Your task to perform on an android device: install app "Google Docs" Image 0: 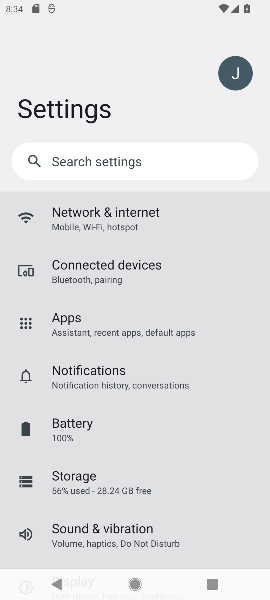
Step 0: press home button
Your task to perform on an android device: install app "Google Docs" Image 1: 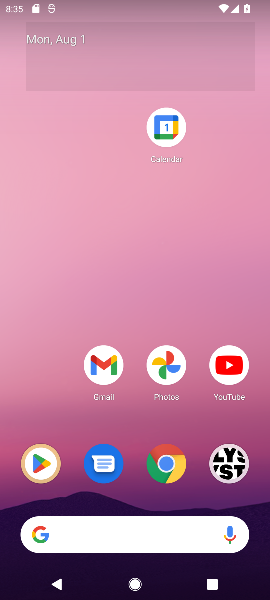
Step 1: click (42, 460)
Your task to perform on an android device: install app "Google Docs" Image 2: 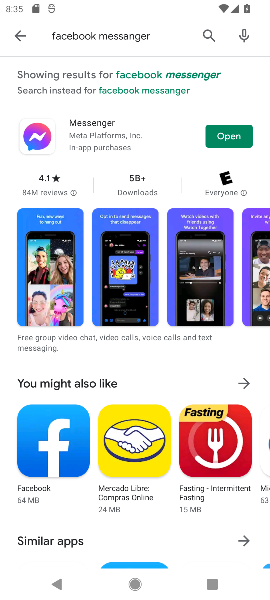
Step 2: click (217, 30)
Your task to perform on an android device: install app "Google Docs" Image 3: 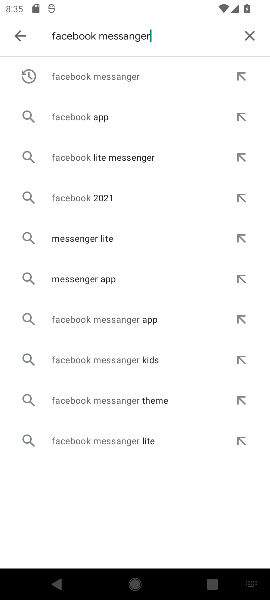
Step 3: click (258, 41)
Your task to perform on an android device: install app "Google Docs" Image 4: 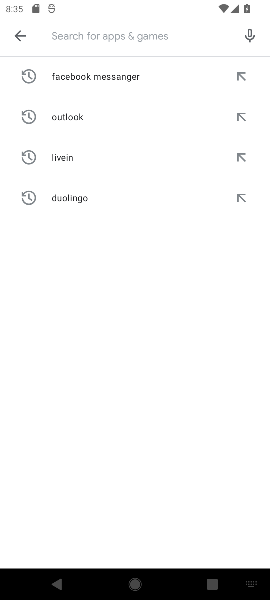
Step 4: type "google doc"
Your task to perform on an android device: install app "Google Docs" Image 5: 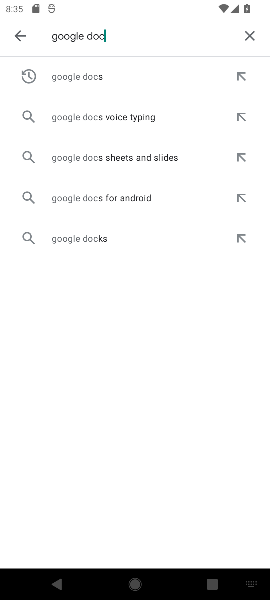
Step 5: click (156, 74)
Your task to perform on an android device: install app "Google Docs" Image 6: 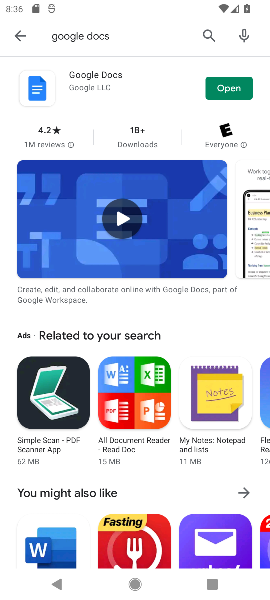
Step 6: click (208, 83)
Your task to perform on an android device: install app "Google Docs" Image 7: 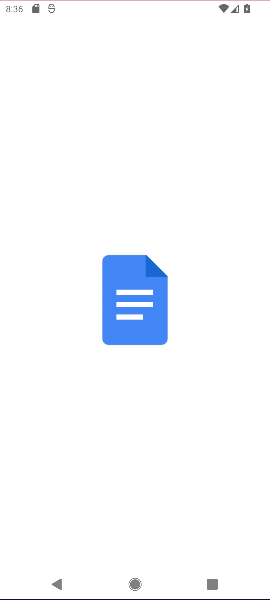
Step 7: task complete